Your task to perform on an android device: Open Google Chrome Image 0: 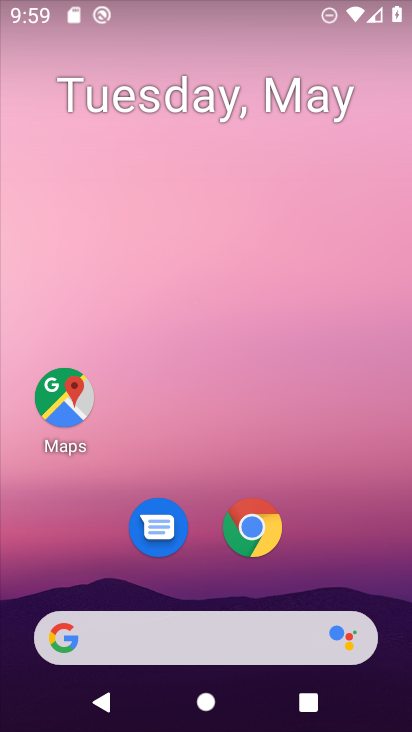
Step 0: click (254, 526)
Your task to perform on an android device: Open Google Chrome Image 1: 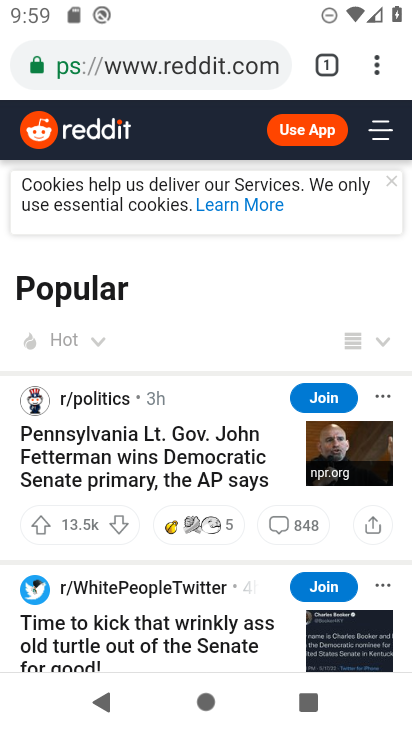
Step 1: task complete